Your task to perform on an android device: WHat are the new products by Samsung on eBay? Image 0: 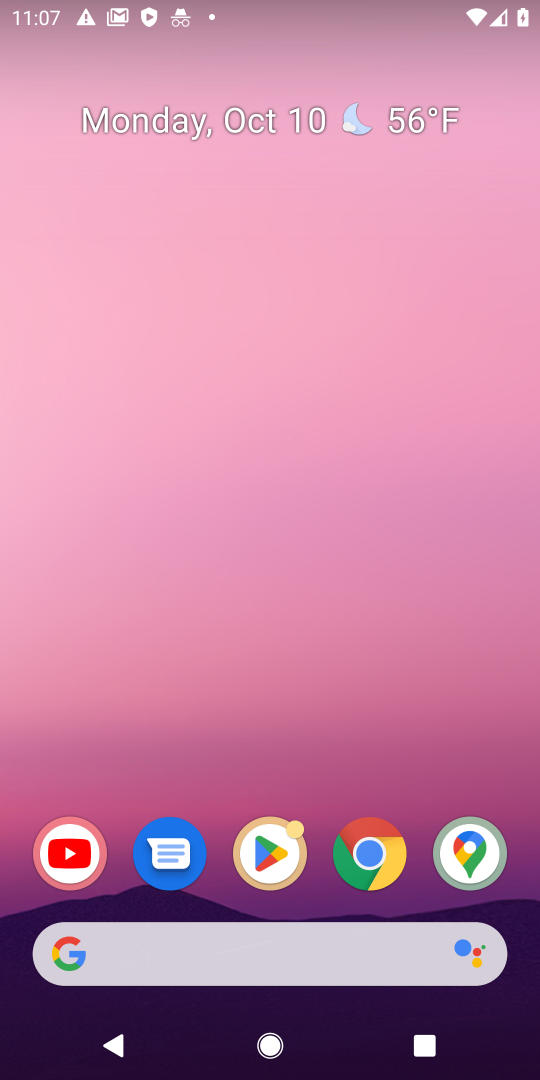
Step 0: click (164, 949)
Your task to perform on an android device: WHat are the new products by Samsung on eBay? Image 1: 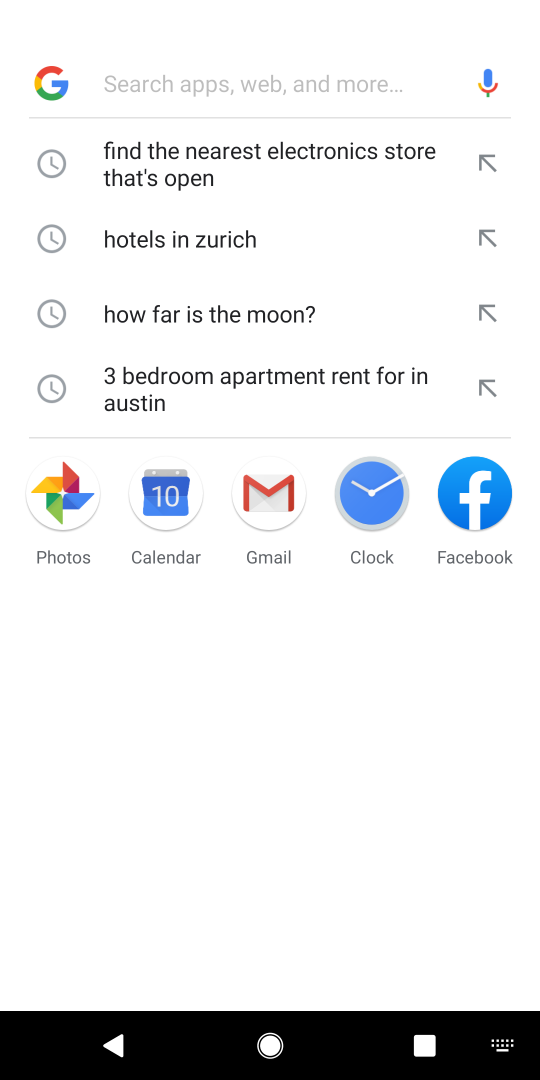
Step 1: press enter
Your task to perform on an android device: WHat are the new products by Samsung on eBay? Image 2: 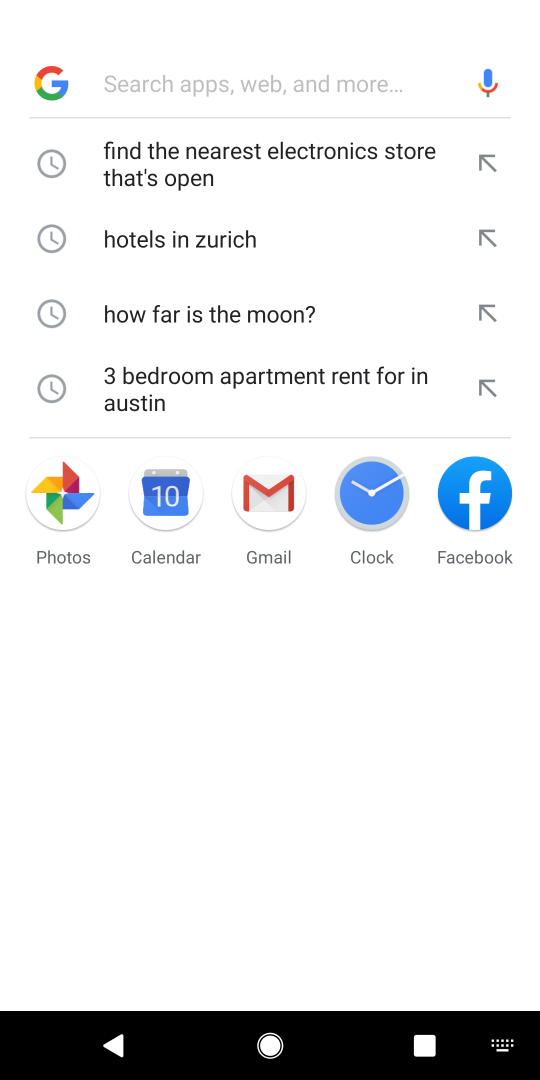
Step 2: type "WHat are the new products by Samsung on eBay"
Your task to perform on an android device: WHat are the new products by Samsung on eBay? Image 3: 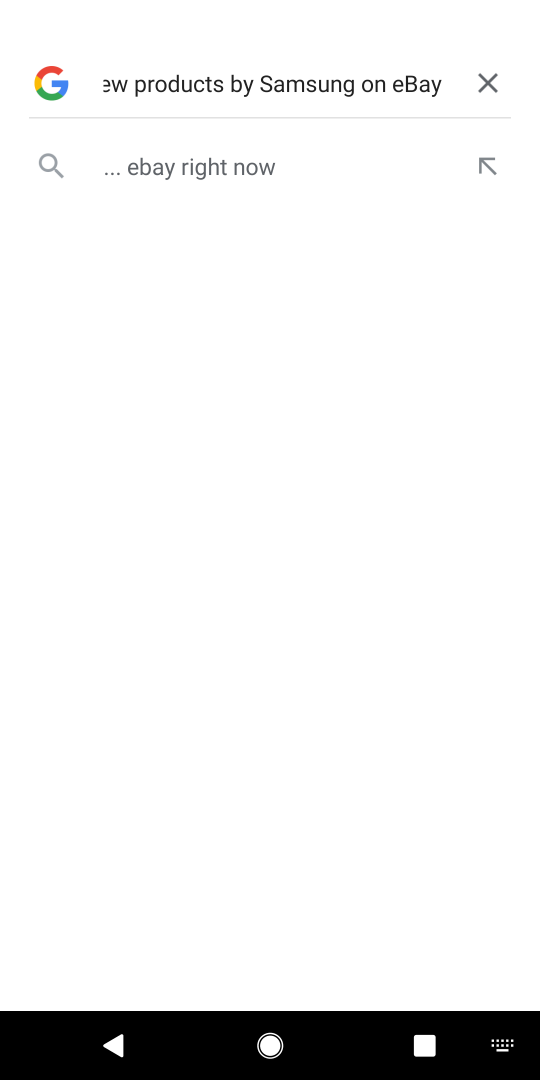
Step 3: press enter
Your task to perform on an android device: WHat are the new products by Samsung on eBay? Image 4: 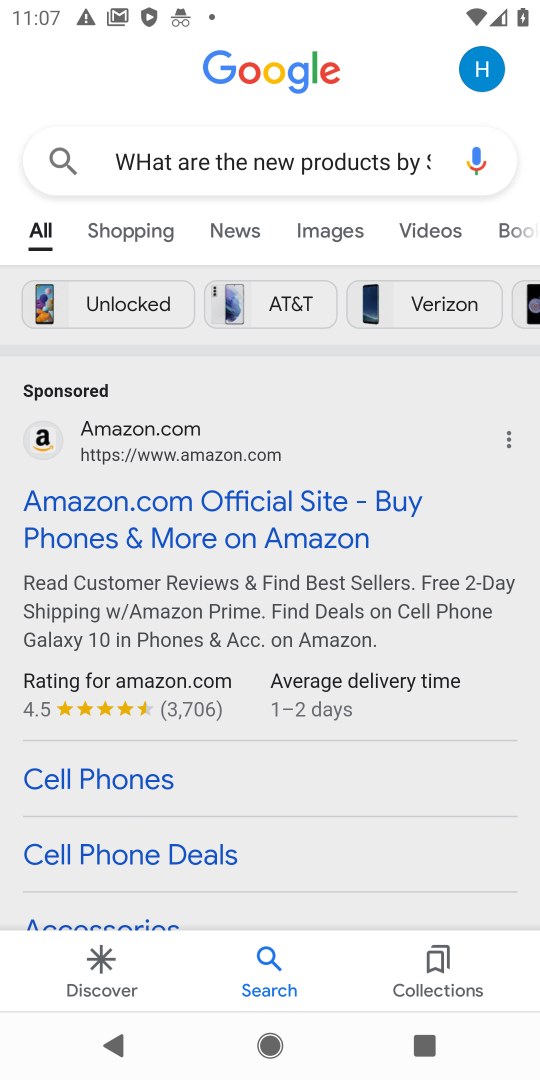
Step 4: drag from (418, 775) to (452, 518)
Your task to perform on an android device: WHat are the new products by Samsung on eBay? Image 5: 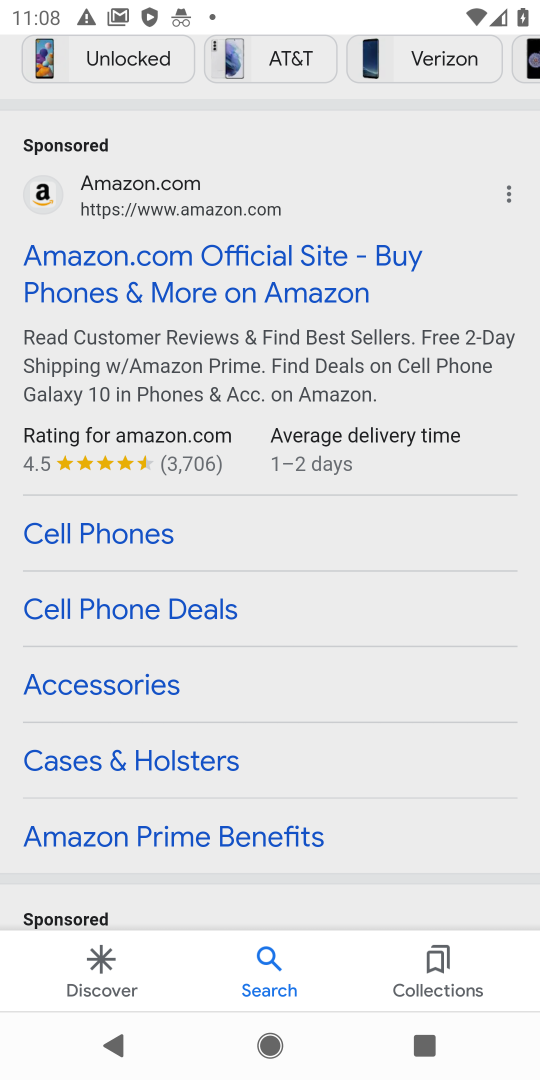
Step 5: drag from (409, 776) to (430, 417)
Your task to perform on an android device: WHat are the new products by Samsung on eBay? Image 6: 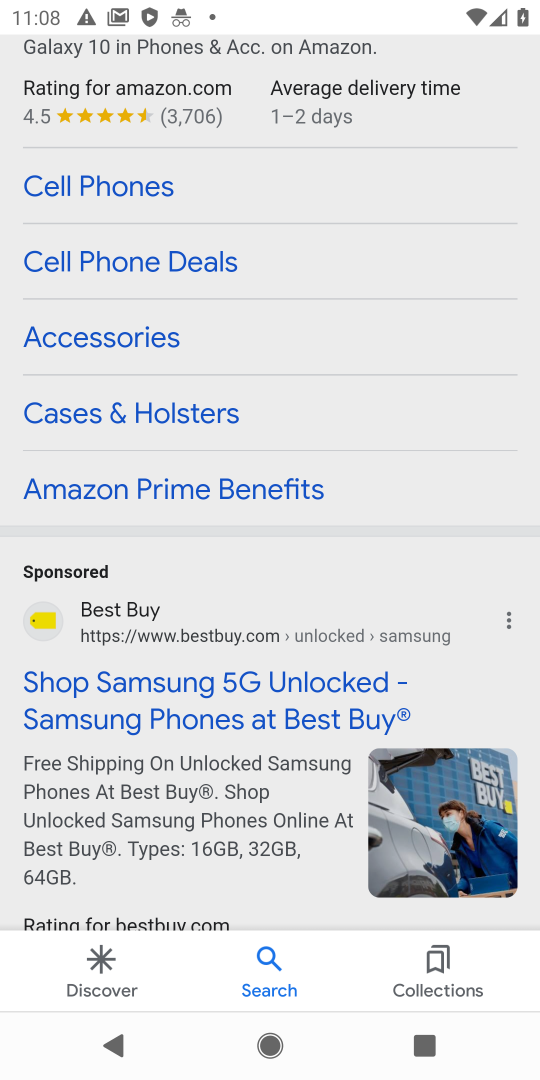
Step 6: drag from (272, 801) to (340, 433)
Your task to perform on an android device: WHat are the new products by Samsung on eBay? Image 7: 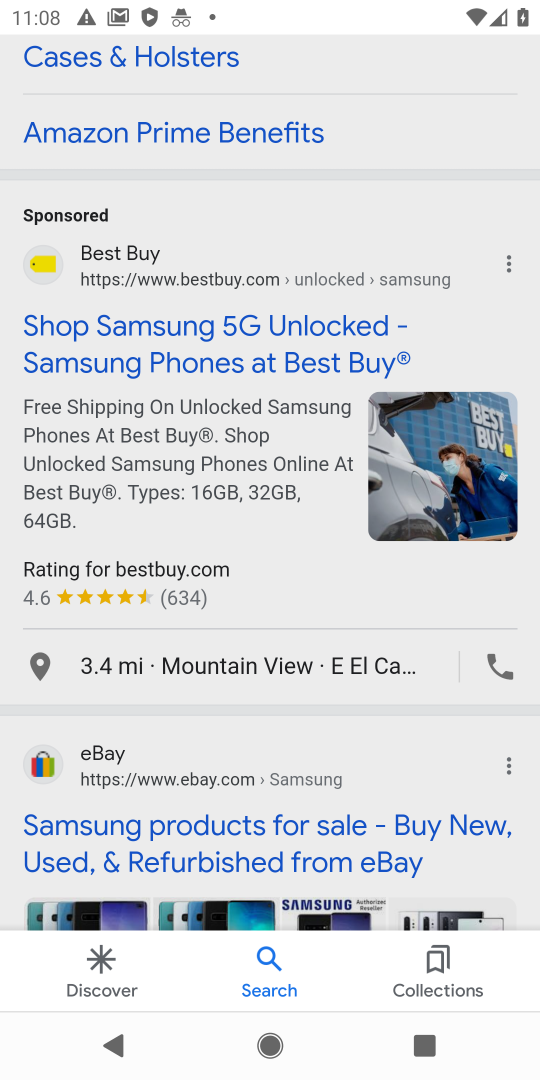
Step 7: drag from (324, 797) to (323, 424)
Your task to perform on an android device: WHat are the new products by Samsung on eBay? Image 8: 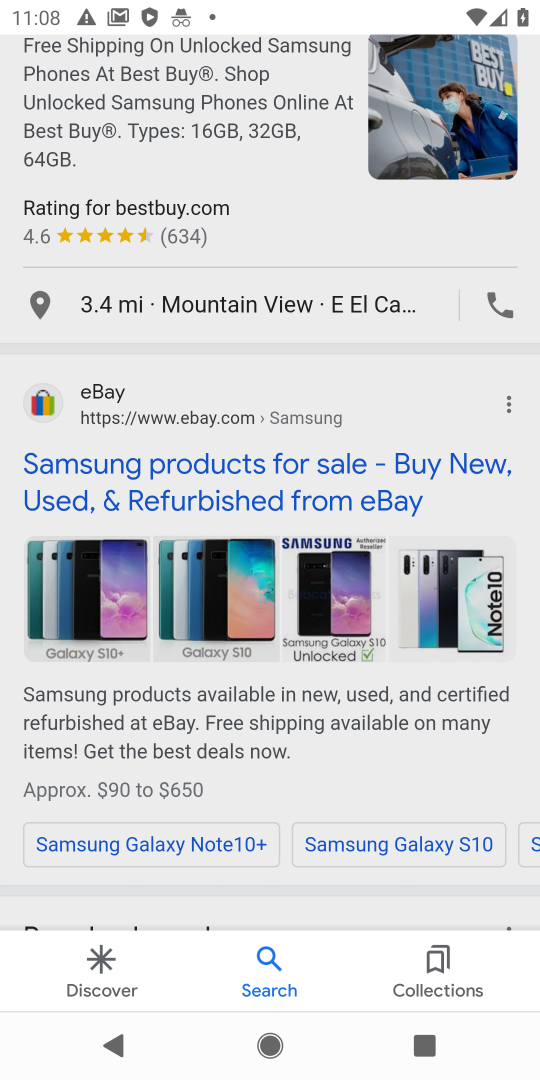
Step 8: click (357, 481)
Your task to perform on an android device: WHat are the new products by Samsung on eBay? Image 9: 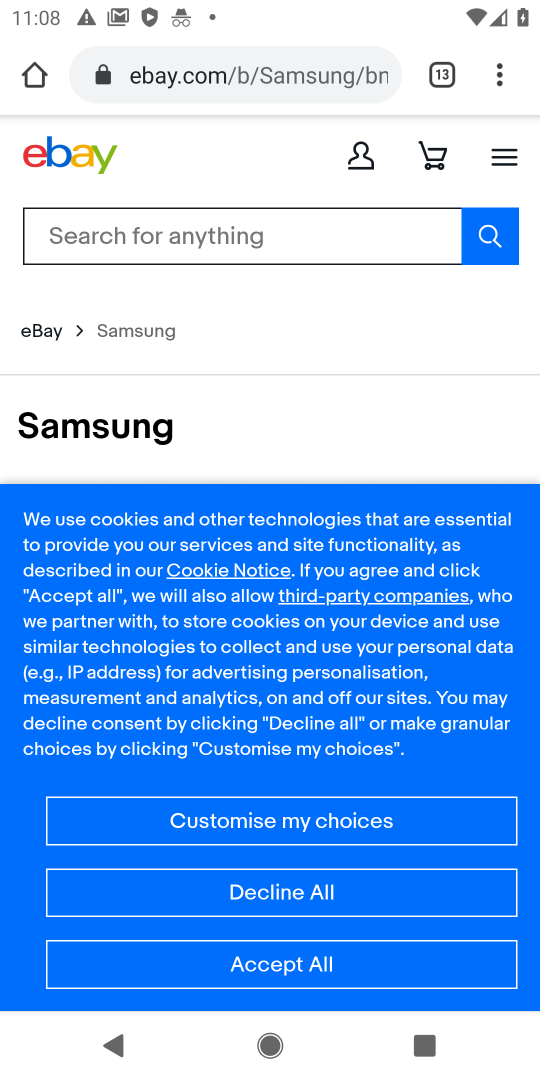
Step 9: click (335, 976)
Your task to perform on an android device: WHat are the new products by Samsung on eBay? Image 10: 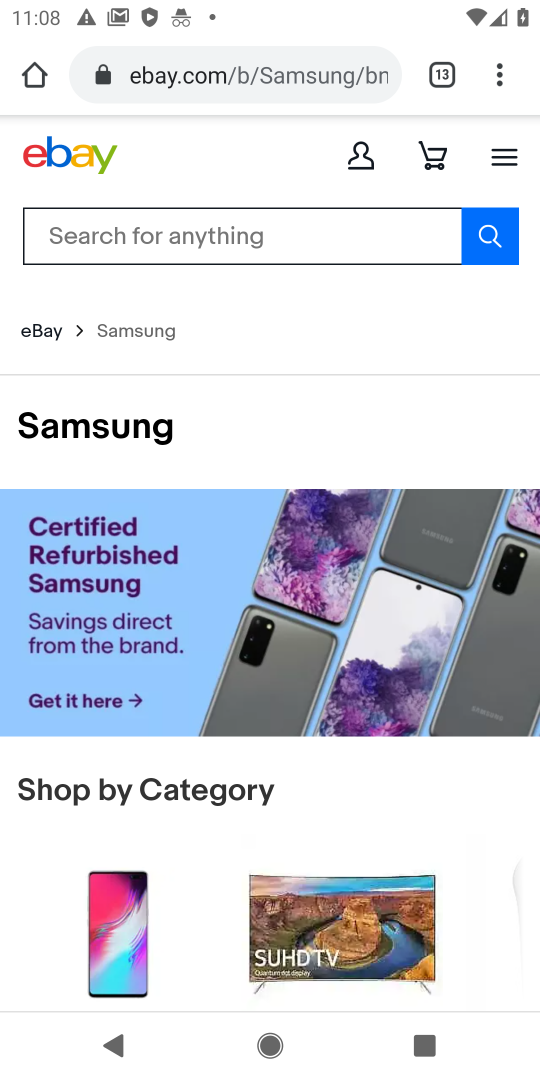
Step 10: task complete